Your task to perform on an android device: Go to Maps Image 0: 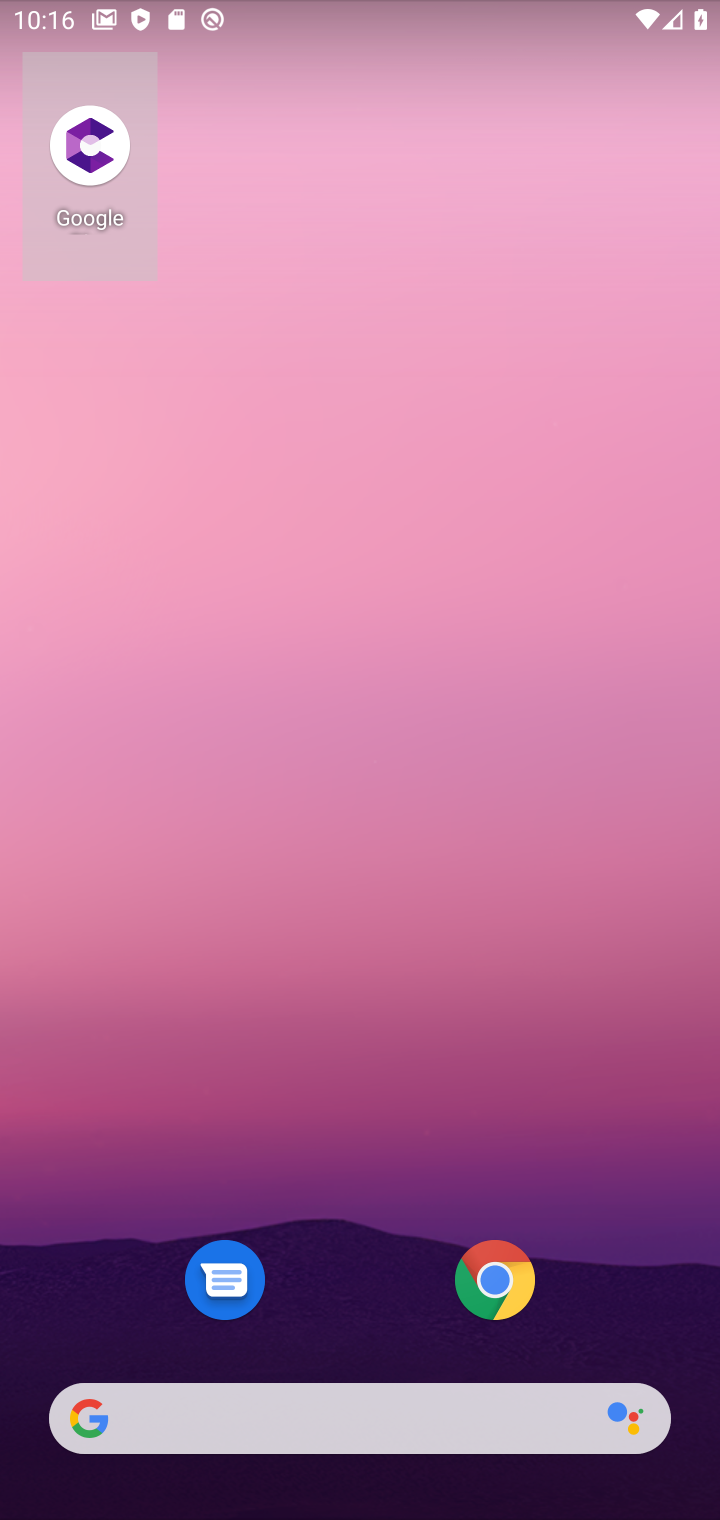
Step 0: drag from (450, 911) to (546, 163)
Your task to perform on an android device: Go to Maps Image 1: 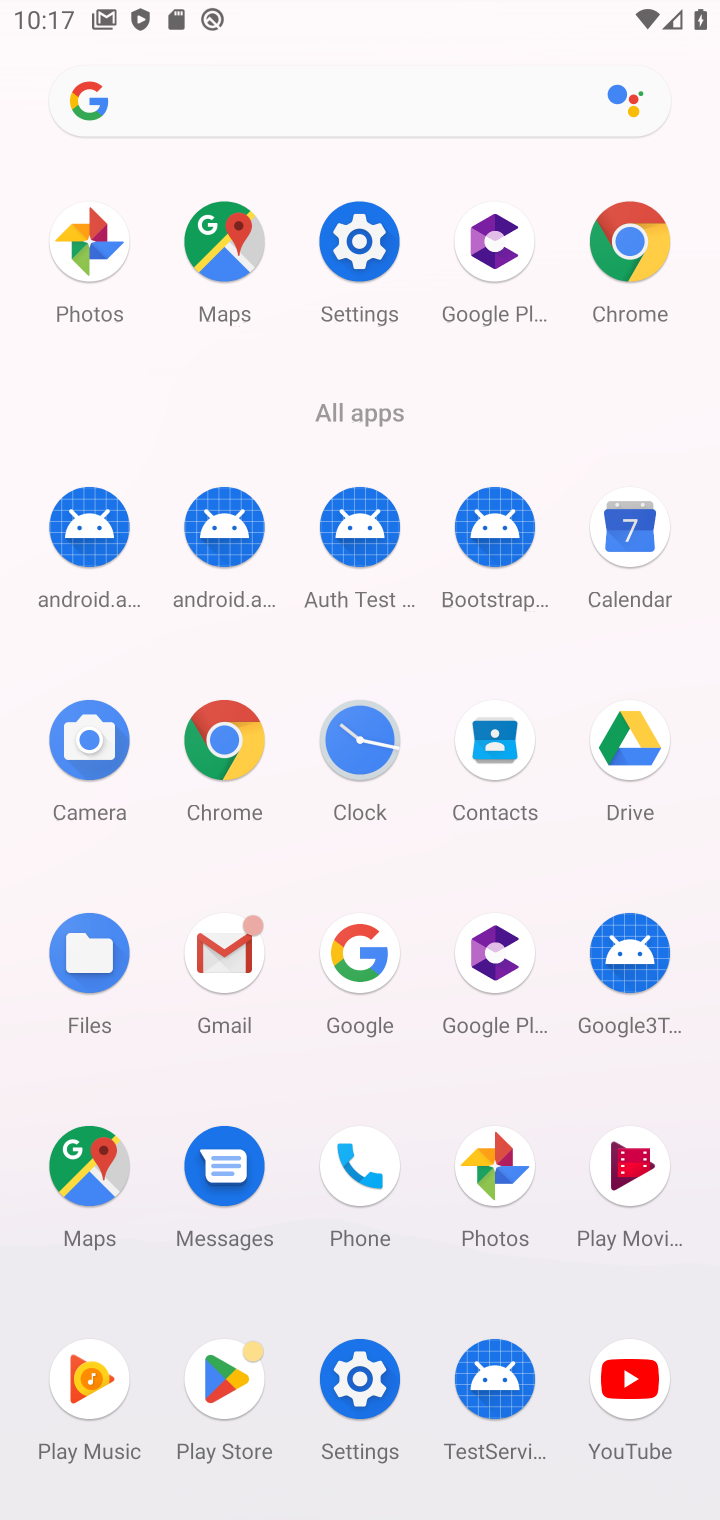
Step 1: click (239, 275)
Your task to perform on an android device: Go to Maps Image 2: 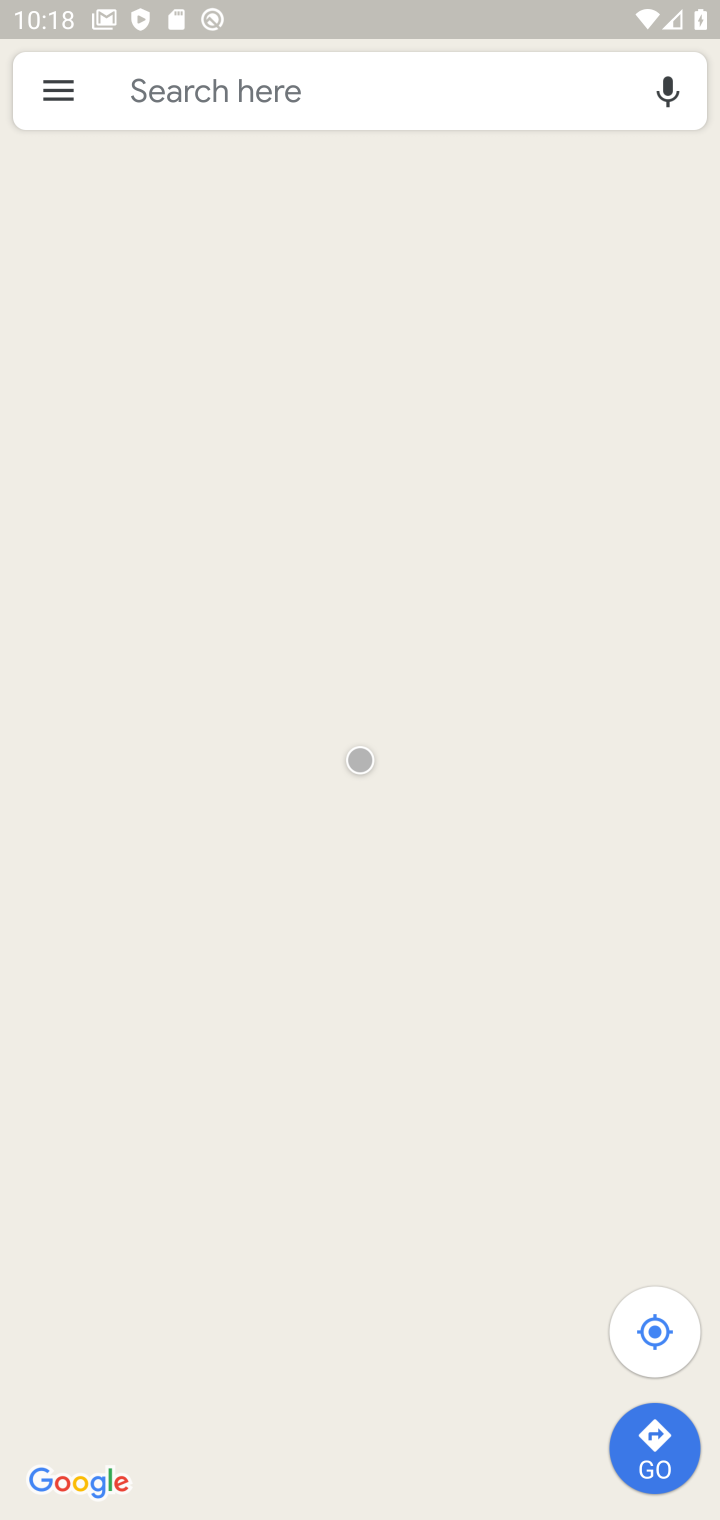
Step 2: task complete